Your task to perform on an android device: toggle javascript in the chrome app Image 0: 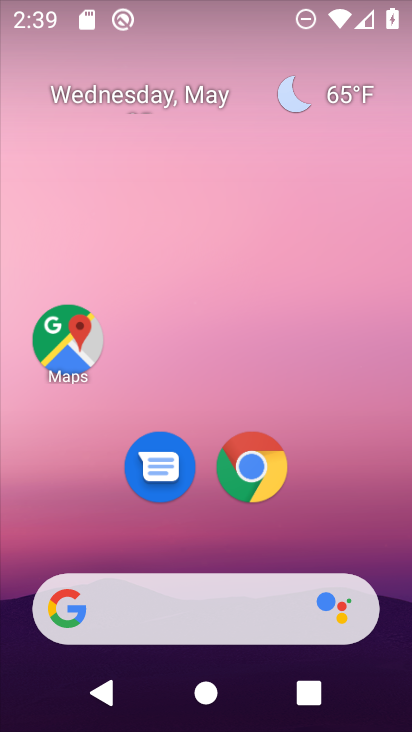
Step 0: click (249, 464)
Your task to perform on an android device: toggle javascript in the chrome app Image 1: 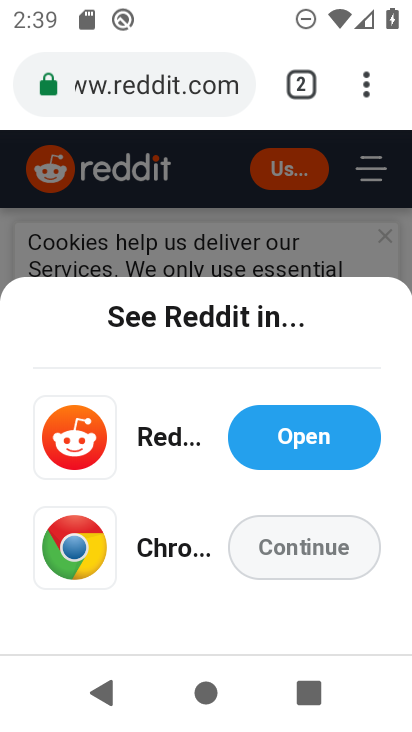
Step 1: click (392, 86)
Your task to perform on an android device: toggle javascript in the chrome app Image 2: 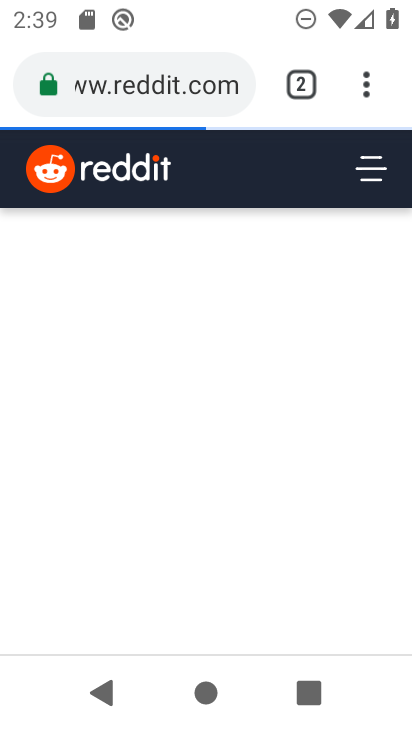
Step 2: click (378, 79)
Your task to perform on an android device: toggle javascript in the chrome app Image 3: 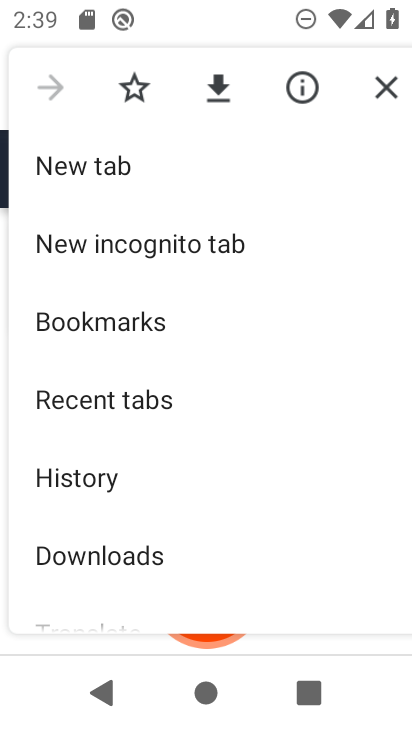
Step 3: drag from (184, 547) to (188, 282)
Your task to perform on an android device: toggle javascript in the chrome app Image 4: 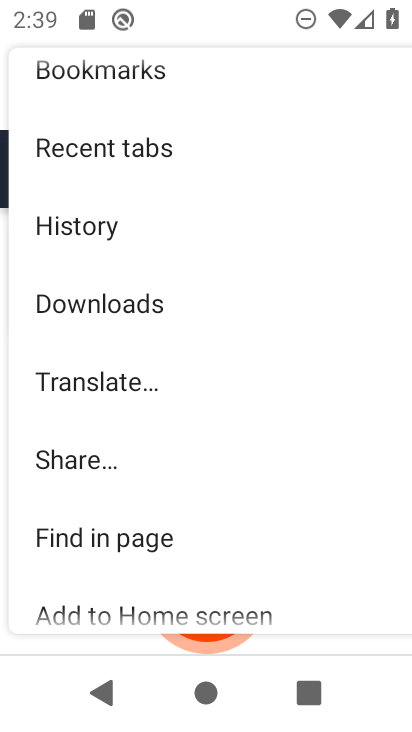
Step 4: drag from (119, 533) to (148, 276)
Your task to perform on an android device: toggle javascript in the chrome app Image 5: 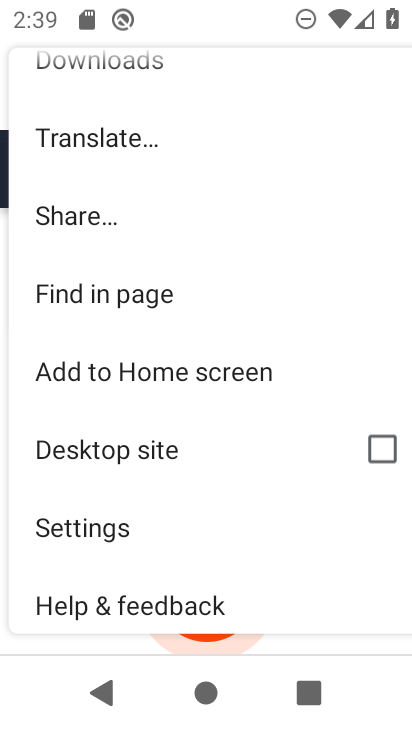
Step 5: click (101, 532)
Your task to perform on an android device: toggle javascript in the chrome app Image 6: 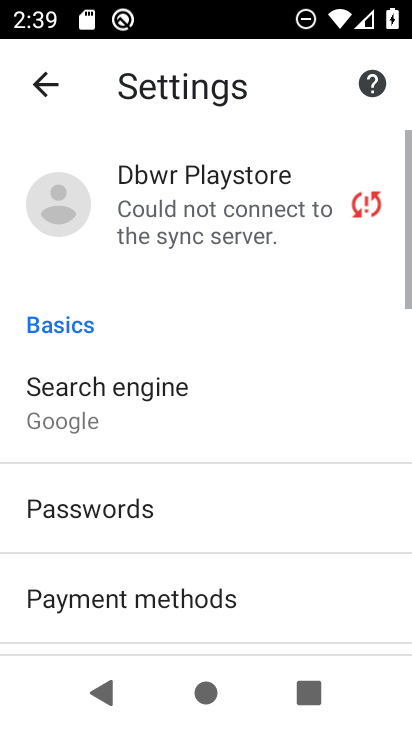
Step 6: drag from (172, 524) to (220, 254)
Your task to perform on an android device: toggle javascript in the chrome app Image 7: 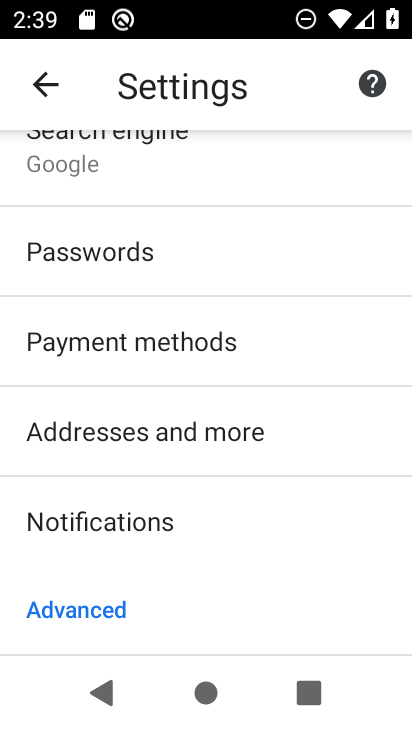
Step 7: drag from (223, 545) to (224, 232)
Your task to perform on an android device: toggle javascript in the chrome app Image 8: 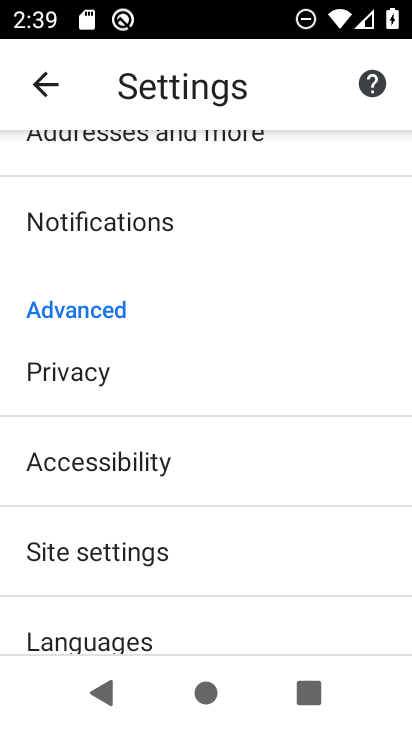
Step 8: click (96, 549)
Your task to perform on an android device: toggle javascript in the chrome app Image 9: 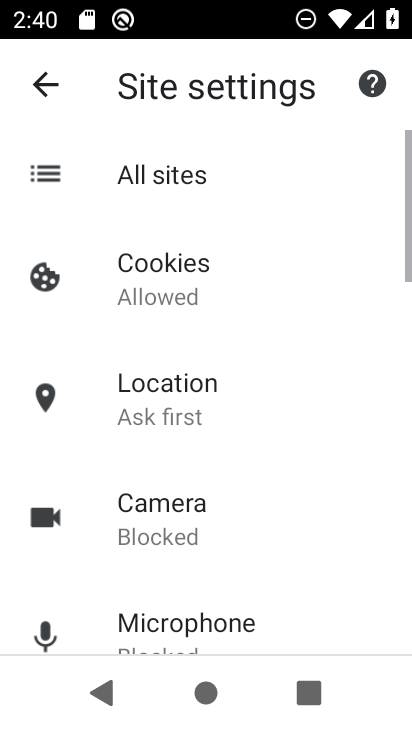
Step 9: drag from (153, 610) to (178, 398)
Your task to perform on an android device: toggle javascript in the chrome app Image 10: 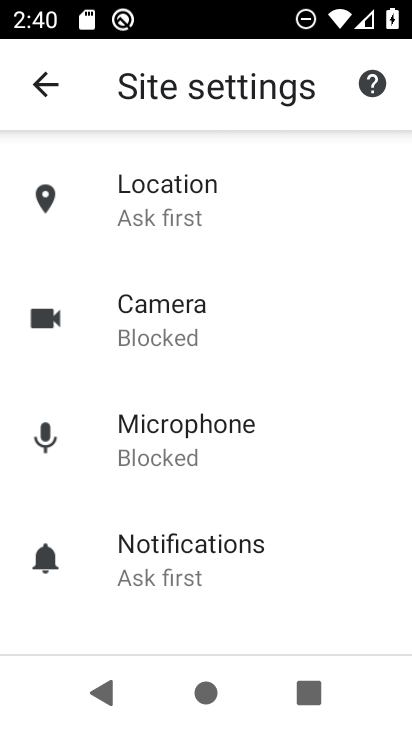
Step 10: drag from (233, 558) to (215, 252)
Your task to perform on an android device: toggle javascript in the chrome app Image 11: 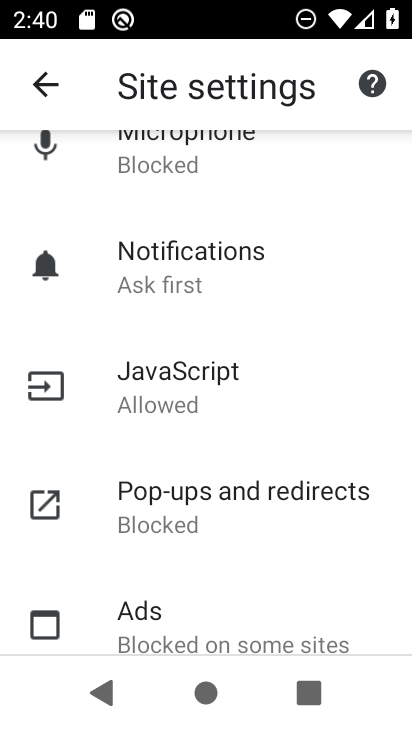
Step 11: drag from (196, 576) to (208, 277)
Your task to perform on an android device: toggle javascript in the chrome app Image 12: 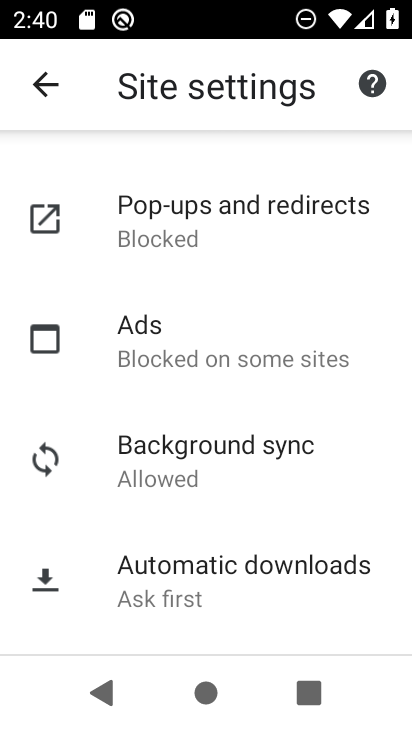
Step 12: drag from (210, 216) to (208, 480)
Your task to perform on an android device: toggle javascript in the chrome app Image 13: 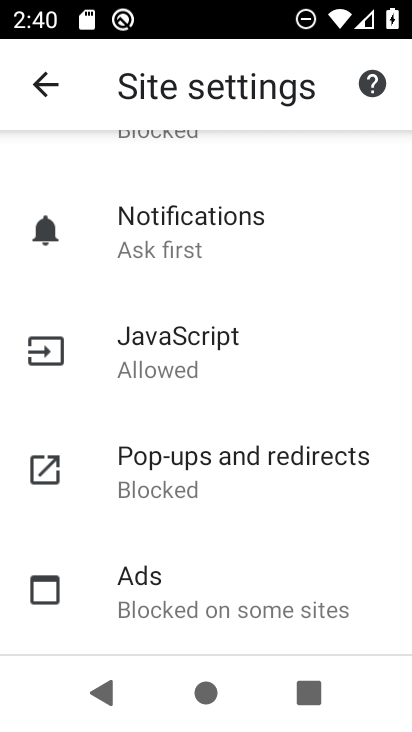
Step 13: click (189, 369)
Your task to perform on an android device: toggle javascript in the chrome app Image 14: 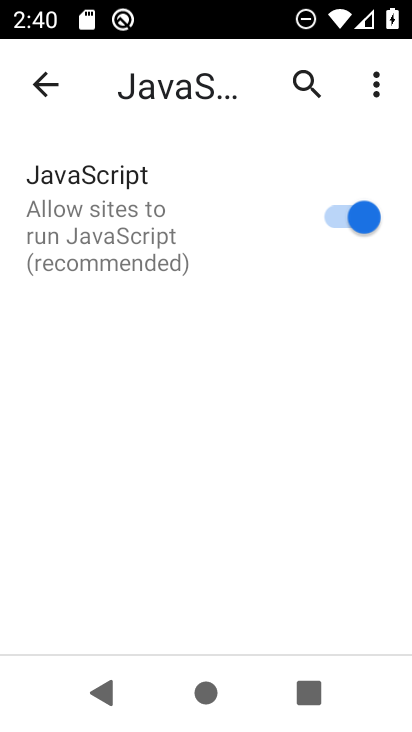
Step 14: click (338, 221)
Your task to perform on an android device: toggle javascript in the chrome app Image 15: 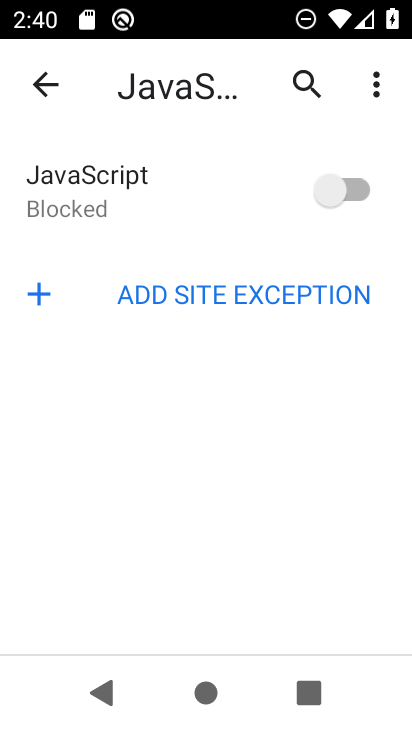
Step 15: task complete